Your task to perform on an android device: Set the phone to "Do not disturb". Image 0: 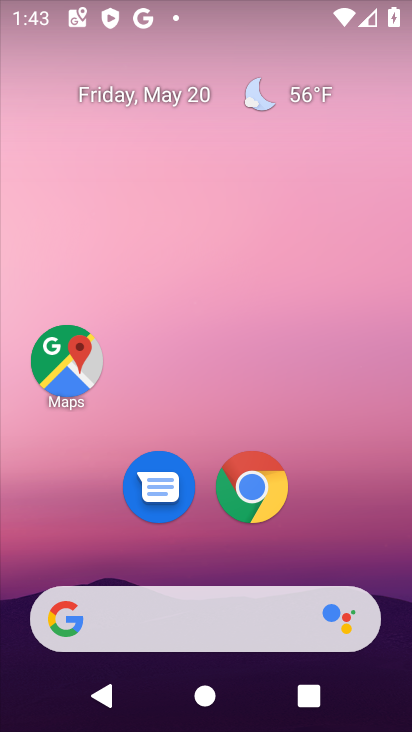
Step 0: drag from (200, 7) to (219, 472)
Your task to perform on an android device: Set the phone to "Do not disturb". Image 1: 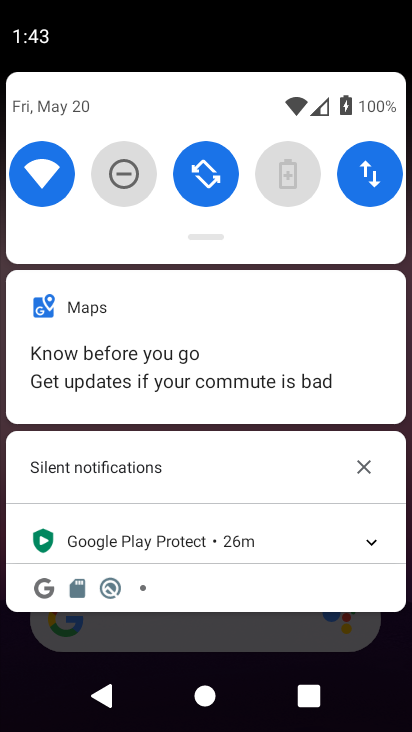
Step 1: click (120, 172)
Your task to perform on an android device: Set the phone to "Do not disturb". Image 2: 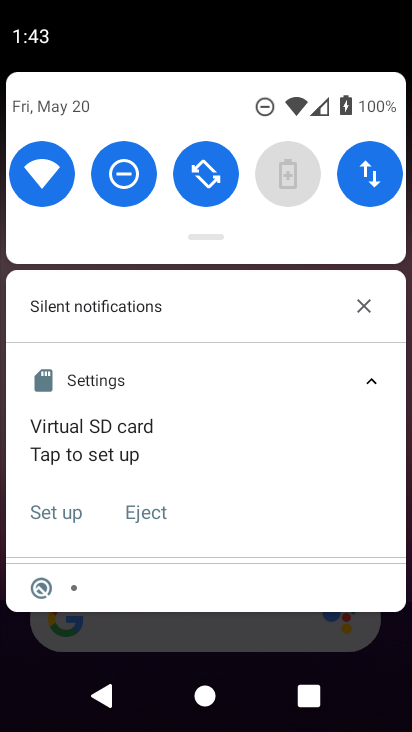
Step 2: task complete